Your task to perform on an android device: Search for Mexican restaurants on Maps Image 0: 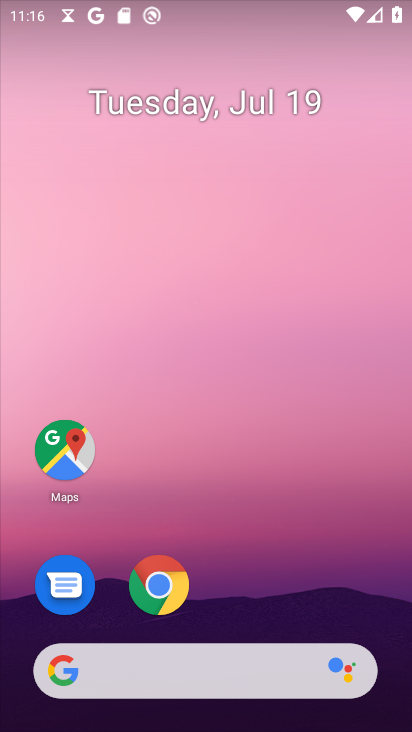
Step 0: click (70, 457)
Your task to perform on an android device: Search for Mexican restaurants on Maps Image 1: 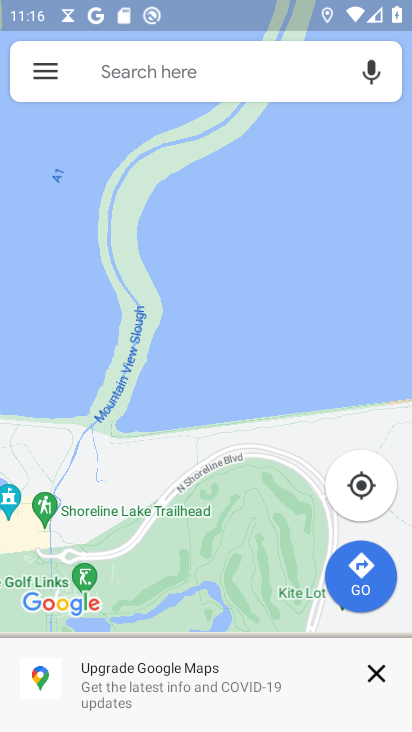
Step 1: click (190, 59)
Your task to perform on an android device: Search for Mexican restaurants on Maps Image 2: 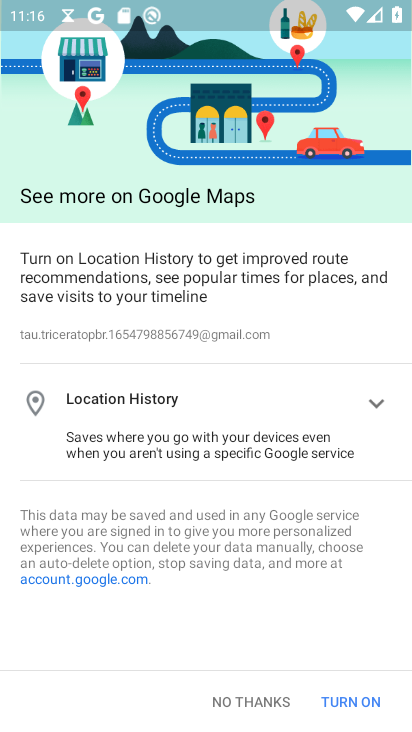
Step 2: click (248, 696)
Your task to perform on an android device: Search for Mexican restaurants on Maps Image 3: 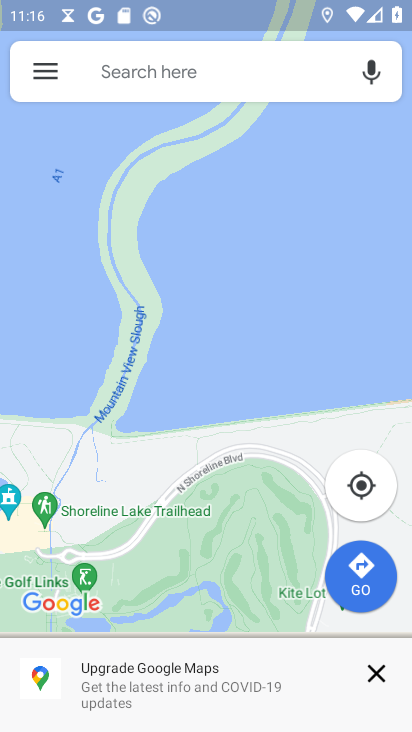
Step 3: click (127, 75)
Your task to perform on an android device: Search for Mexican restaurants on Maps Image 4: 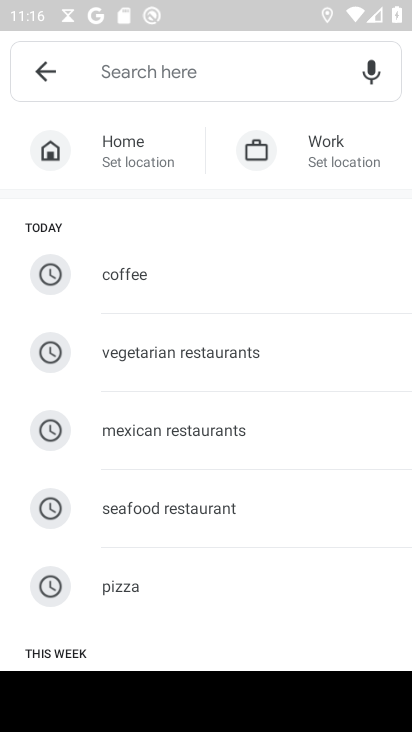
Step 4: click (225, 426)
Your task to perform on an android device: Search for Mexican restaurants on Maps Image 5: 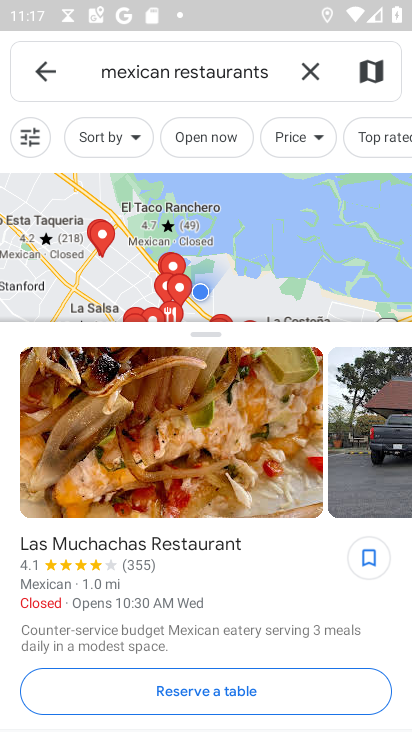
Step 5: task complete